Your task to perform on an android device: Do I have any events this weekend? Image 0: 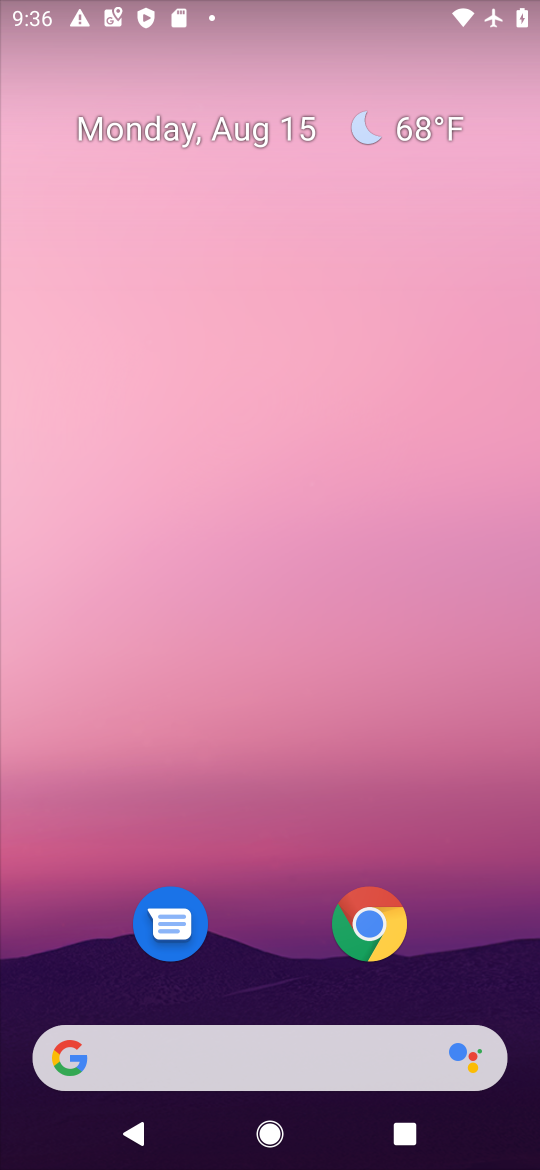
Step 0: drag from (507, 979) to (445, 55)
Your task to perform on an android device: Do I have any events this weekend? Image 1: 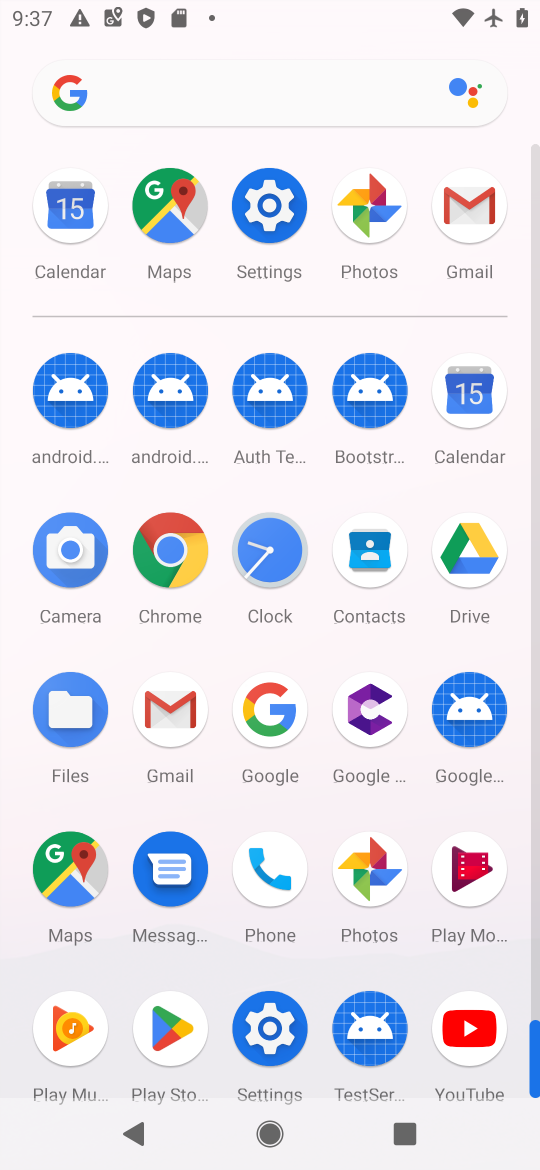
Step 1: click (472, 391)
Your task to perform on an android device: Do I have any events this weekend? Image 2: 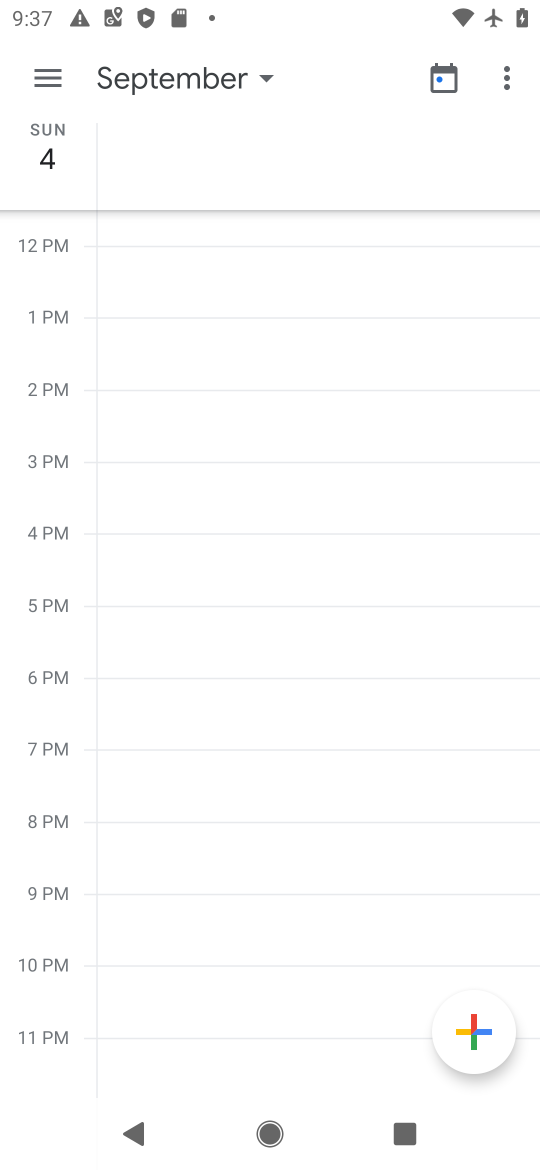
Step 2: click (41, 79)
Your task to perform on an android device: Do I have any events this weekend? Image 3: 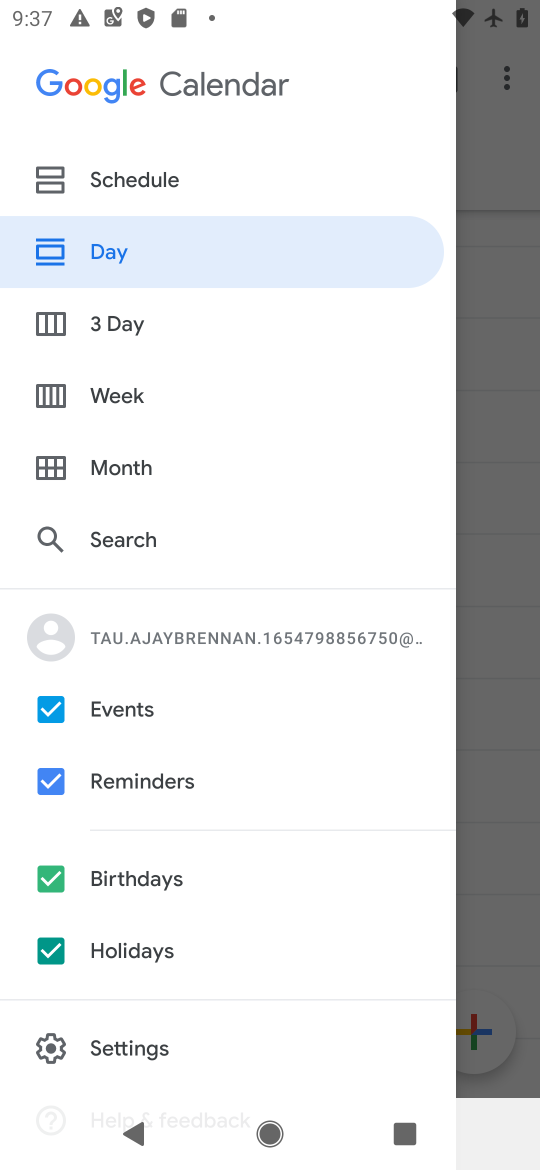
Step 3: click (123, 394)
Your task to perform on an android device: Do I have any events this weekend? Image 4: 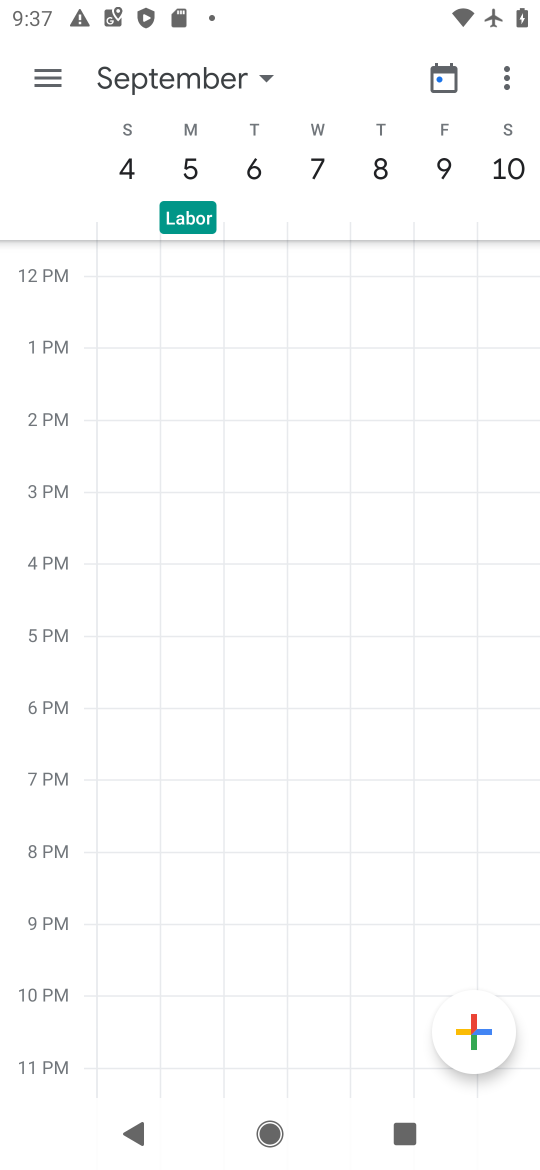
Step 4: click (260, 78)
Your task to perform on an android device: Do I have any events this weekend? Image 5: 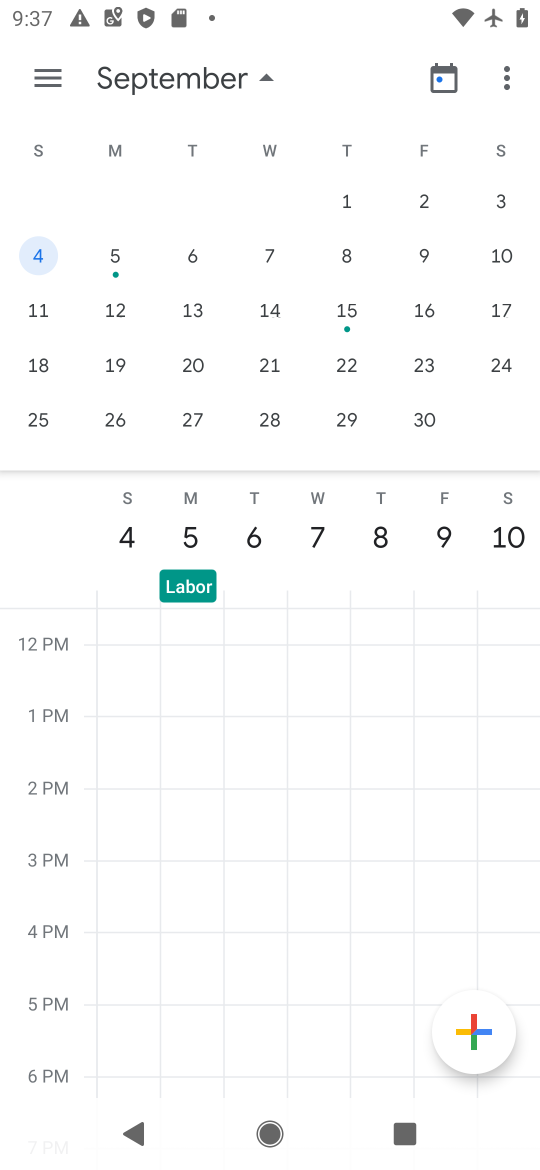
Step 5: drag from (34, 366) to (529, 333)
Your task to perform on an android device: Do I have any events this weekend? Image 6: 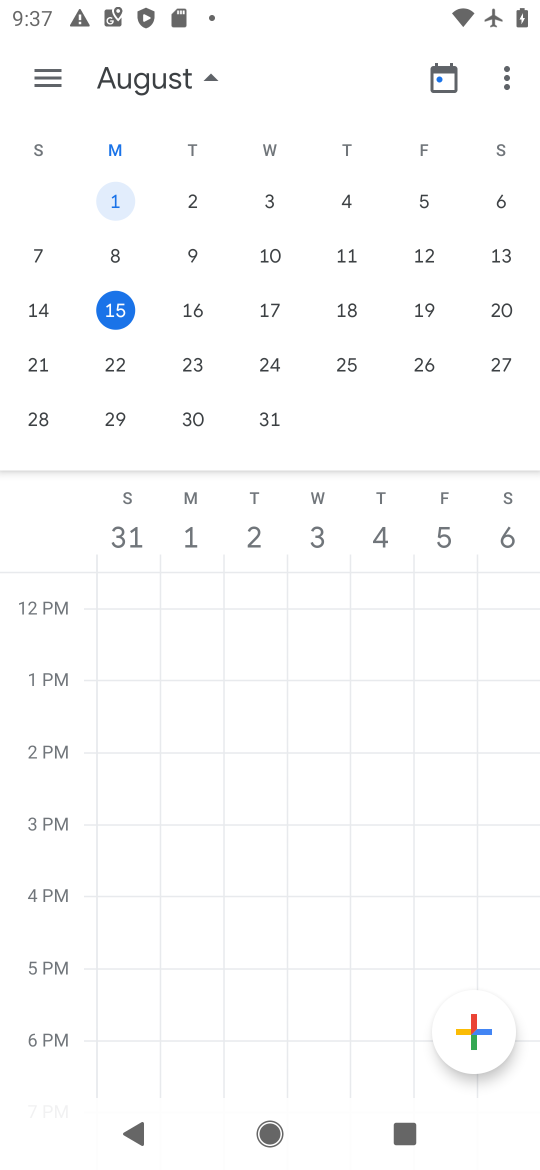
Step 6: click (115, 306)
Your task to perform on an android device: Do I have any events this weekend? Image 7: 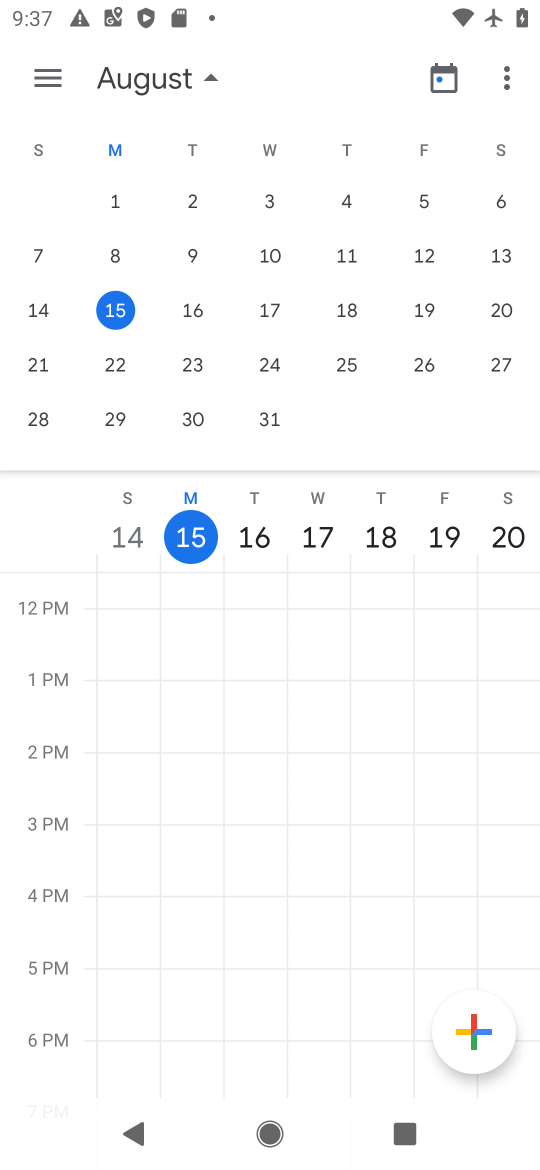
Step 7: task complete